Your task to perform on an android device: change the clock display to analog Image 0: 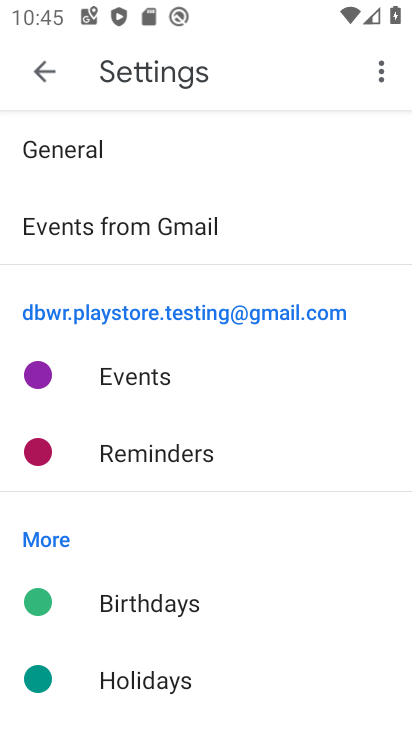
Step 0: press home button
Your task to perform on an android device: change the clock display to analog Image 1: 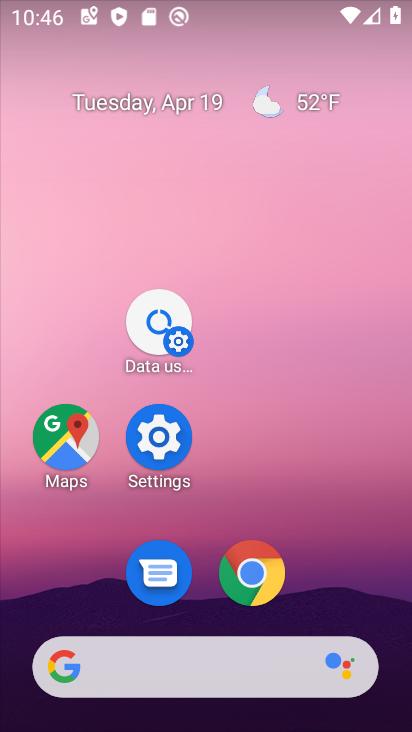
Step 1: drag from (364, 620) to (364, 0)
Your task to perform on an android device: change the clock display to analog Image 2: 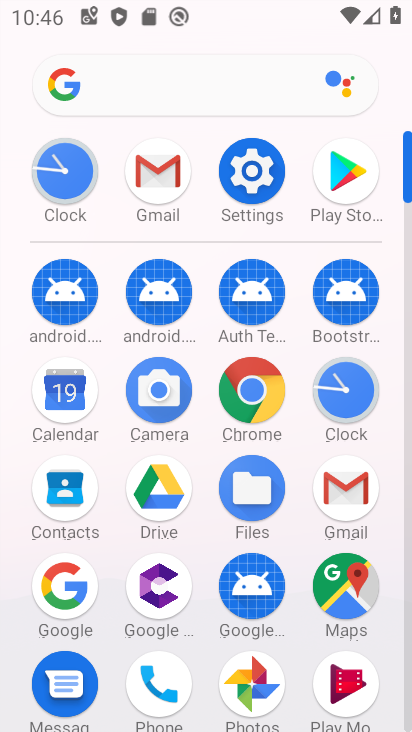
Step 2: click (44, 176)
Your task to perform on an android device: change the clock display to analog Image 3: 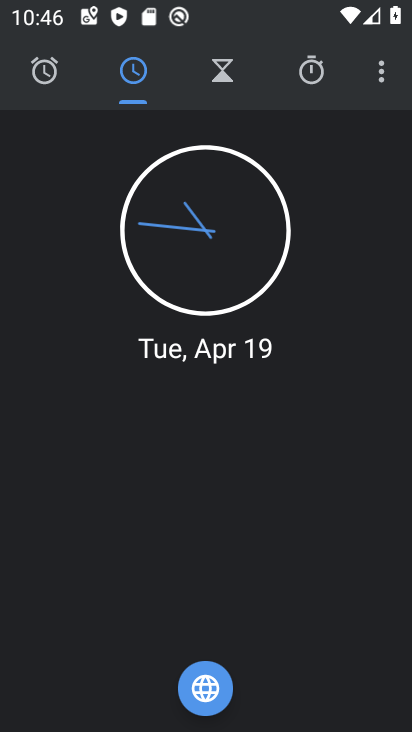
Step 3: click (382, 75)
Your task to perform on an android device: change the clock display to analog Image 4: 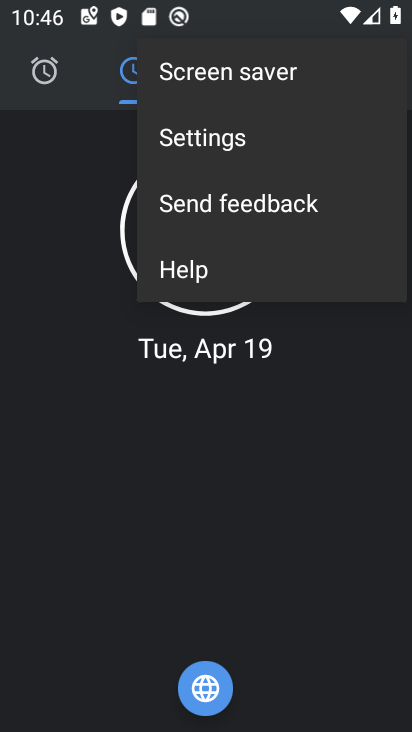
Step 4: click (200, 145)
Your task to perform on an android device: change the clock display to analog Image 5: 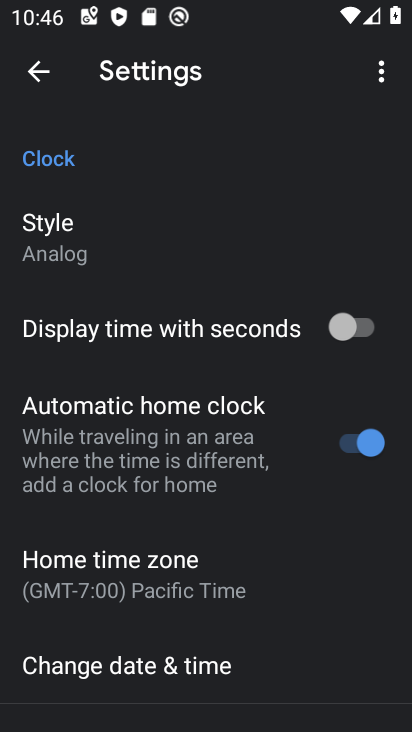
Step 5: task complete